Your task to perform on an android device: Open Amazon Image 0: 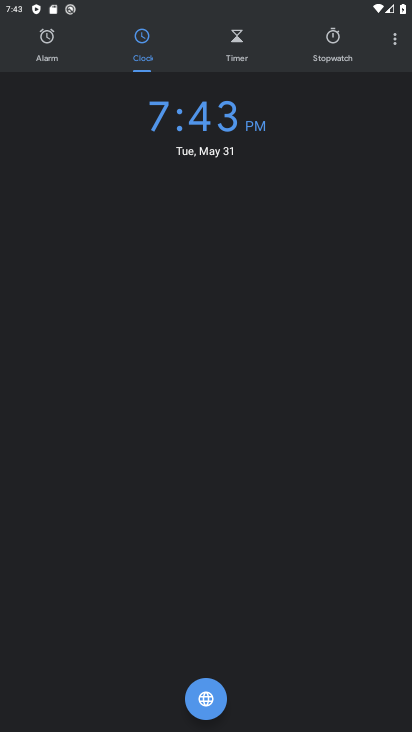
Step 0: press home button
Your task to perform on an android device: Open Amazon Image 1: 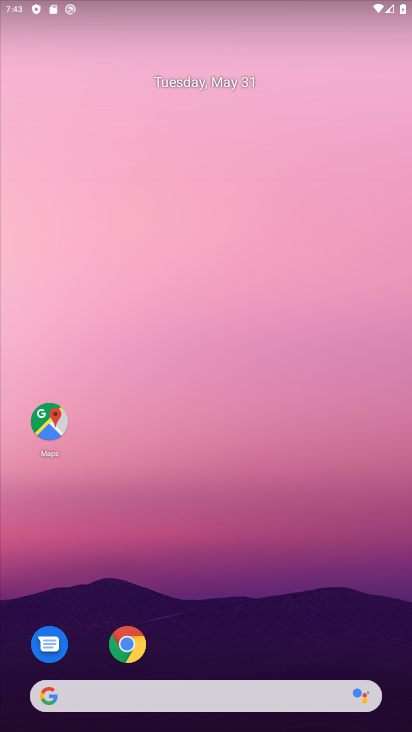
Step 1: click (134, 640)
Your task to perform on an android device: Open Amazon Image 2: 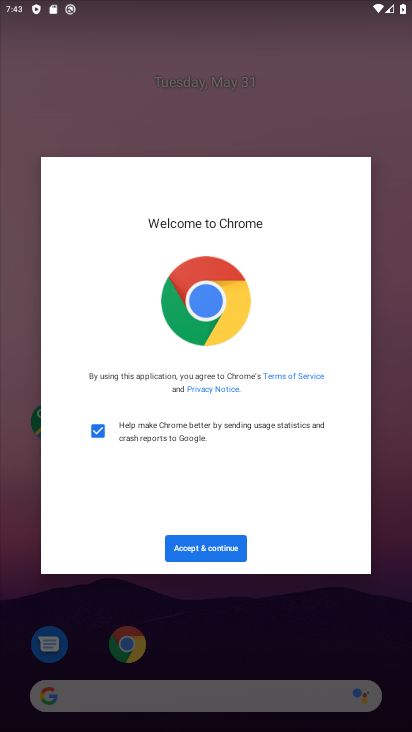
Step 2: click (206, 550)
Your task to perform on an android device: Open Amazon Image 3: 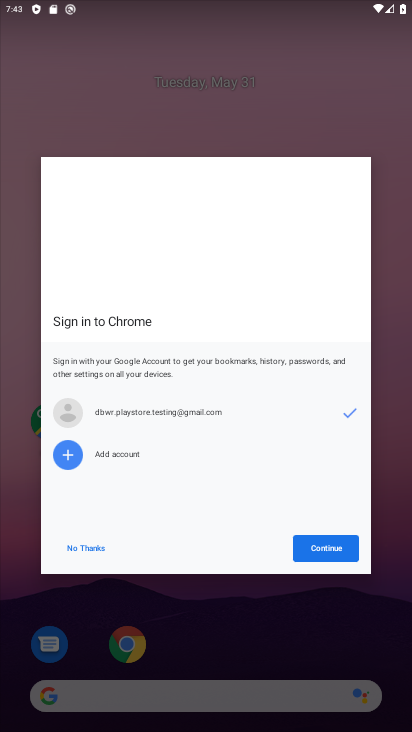
Step 3: click (341, 541)
Your task to perform on an android device: Open Amazon Image 4: 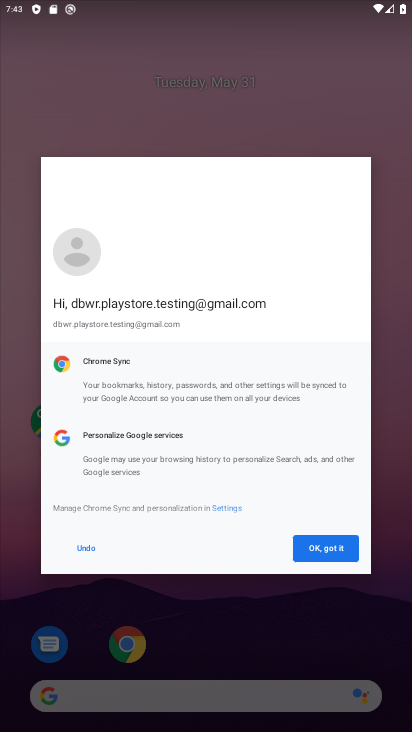
Step 4: click (341, 541)
Your task to perform on an android device: Open Amazon Image 5: 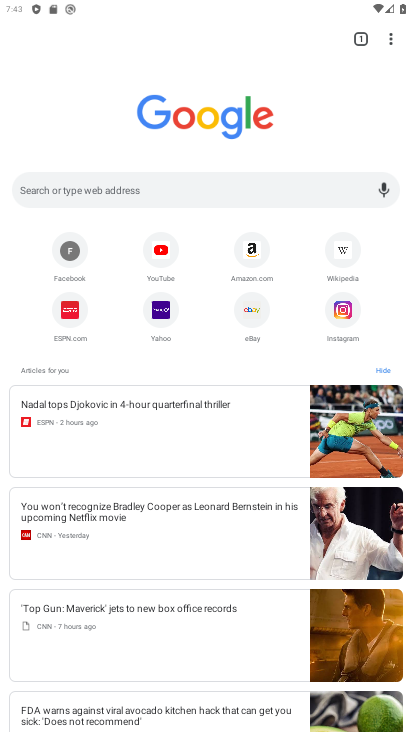
Step 5: click (260, 248)
Your task to perform on an android device: Open Amazon Image 6: 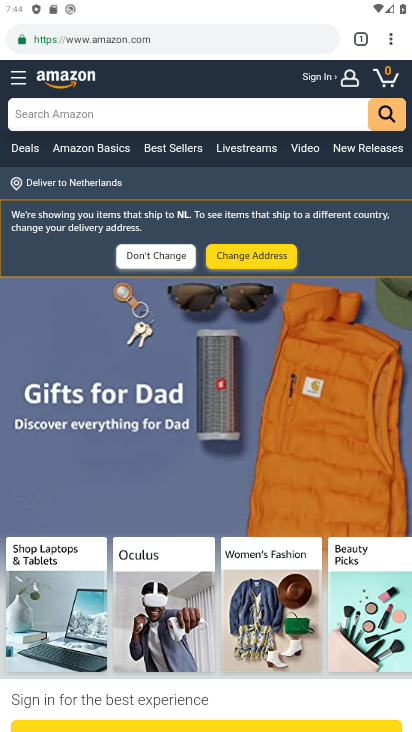
Step 6: task complete